Your task to perform on an android device: toggle notifications settings in the gmail app Image 0: 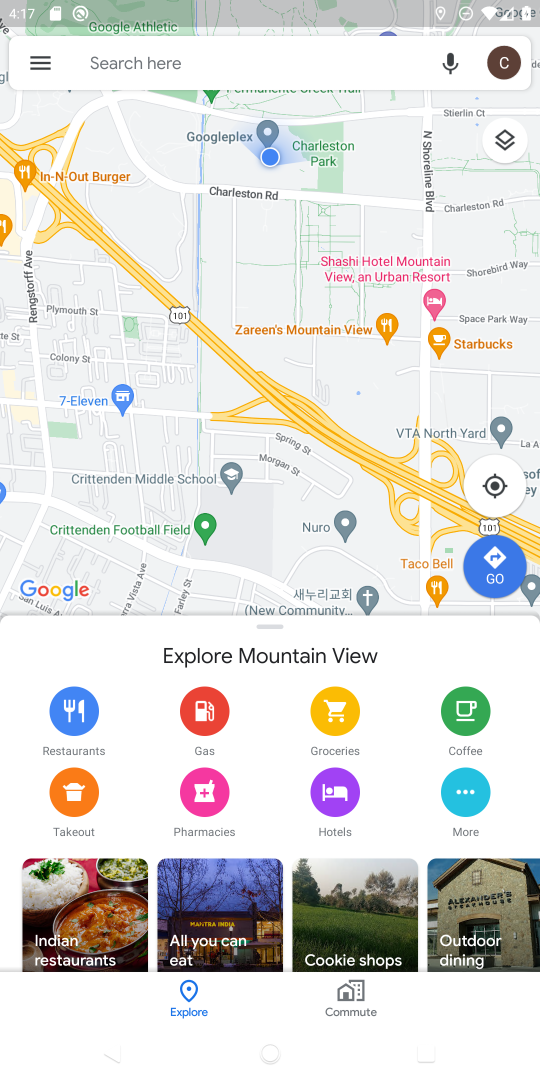
Step 0: press home button
Your task to perform on an android device: toggle notifications settings in the gmail app Image 1: 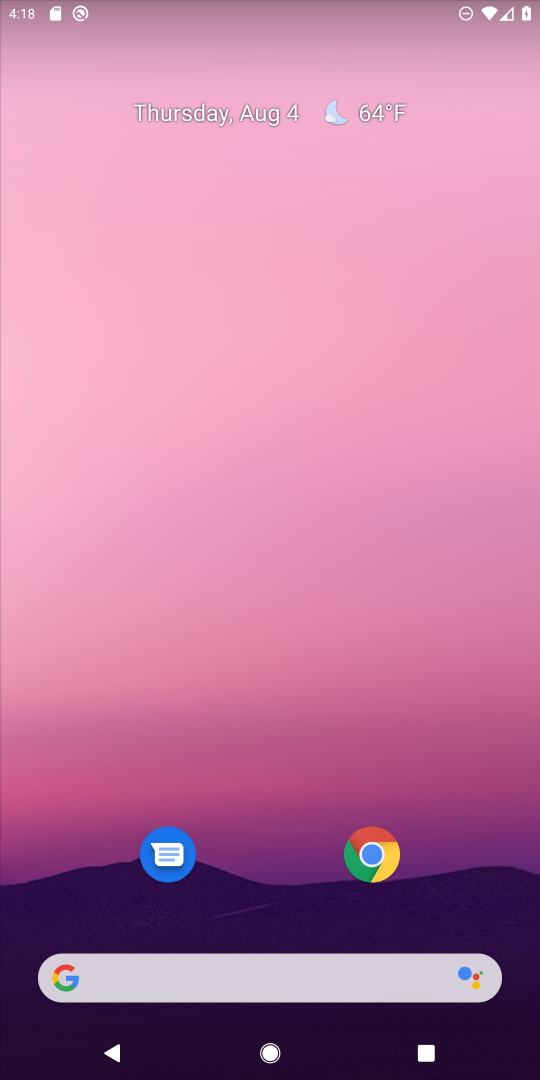
Step 1: drag from (239, 575) to (199, 48)
Your task to perform on an android device: toggle notifications settings in the gmail app Image 2: 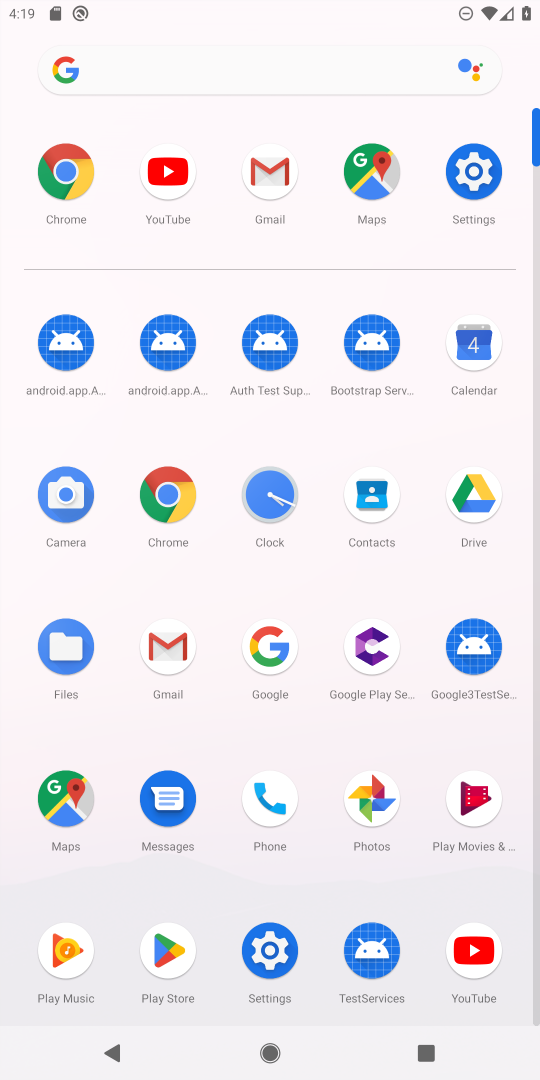
Step 2: click (484, 173)
Your task to perform on an android device: toggle notifications settings in the gmail app Image 3: 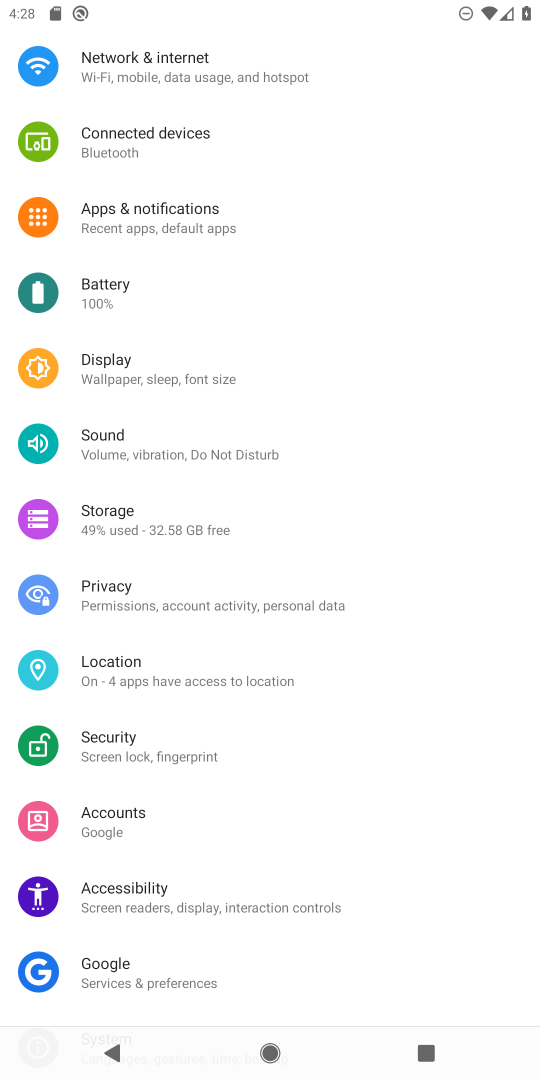
Step 3: task complete